Your task to perform on an android device: turn off translation in the chrome app Image 0: 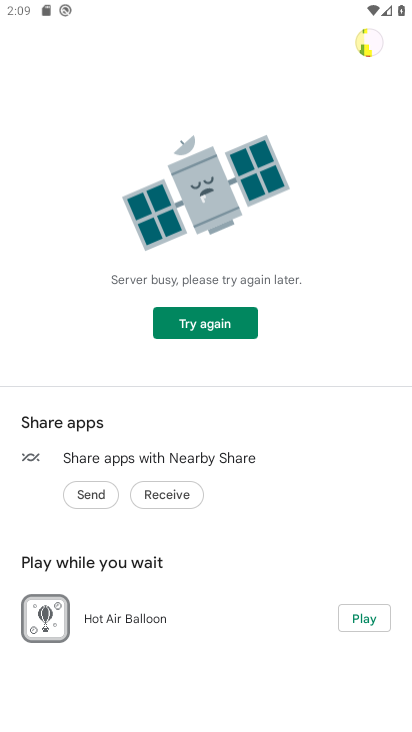
Step 0: press home button
Your task to perform on an android device: turn off translation in the chrome app Image 1: 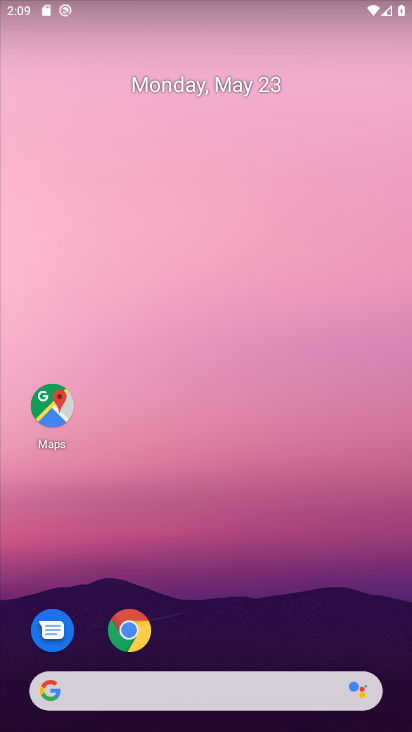
Step 1: click (139, 631)
Your task to perform on an android device: turn off translation in the chrome app Image 2: 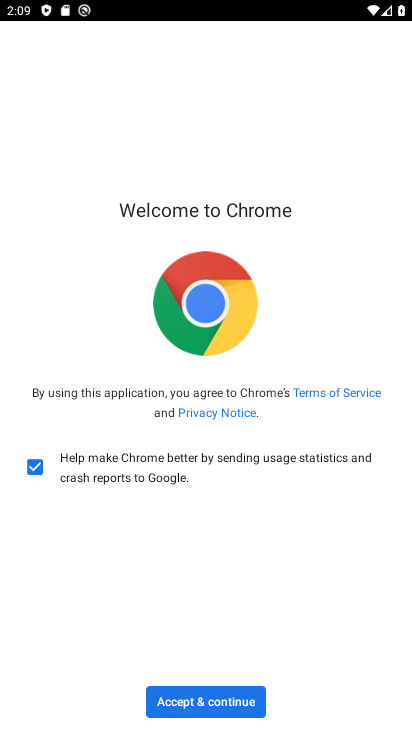
Step 2: click (214, 701)
Your task to perform on an android device: turn off translation in the chrome app Image 3: 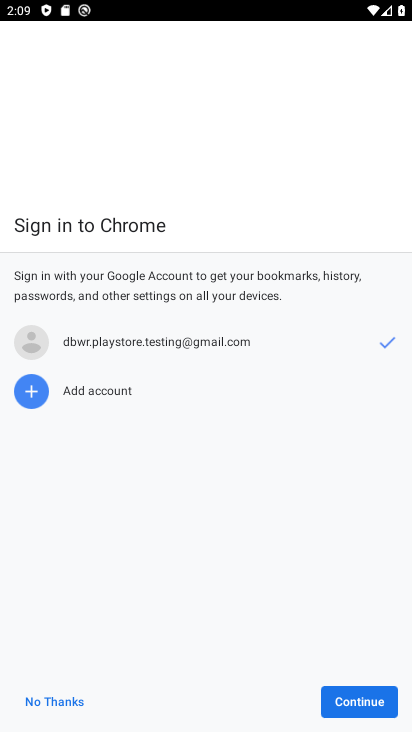
Step 3: click (345, 690)
Your task to perform on an android device: turn off translation in the chrome app Image 4: 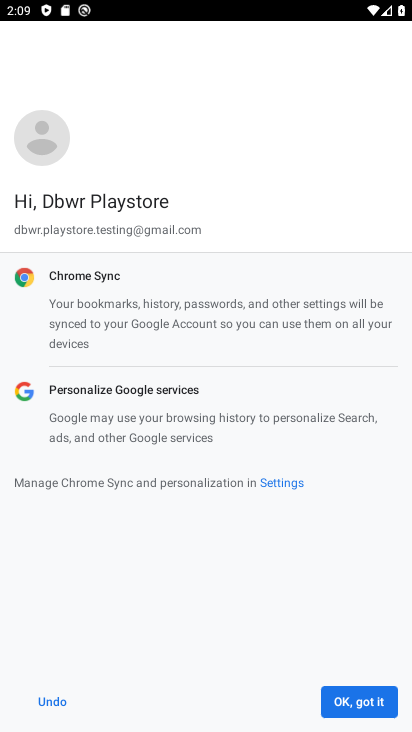
Step 4: click (354, 704)
Your task to perform on an android device: turn off translation in the chrome app Image 5: 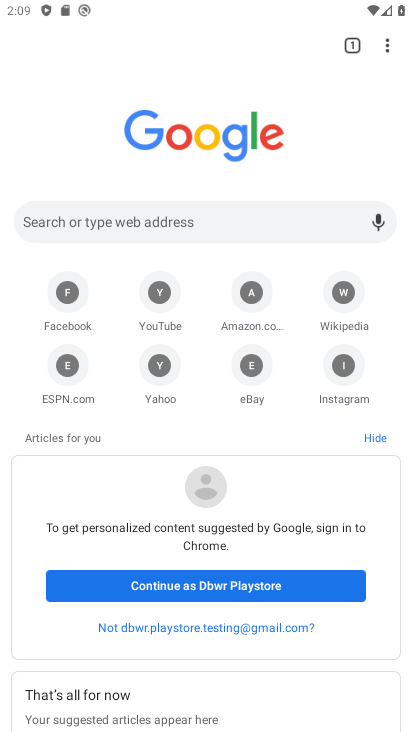
Step 5: click (384, 43)
Your task to perform on an android device: turn off translation in the chrome app Image 6: 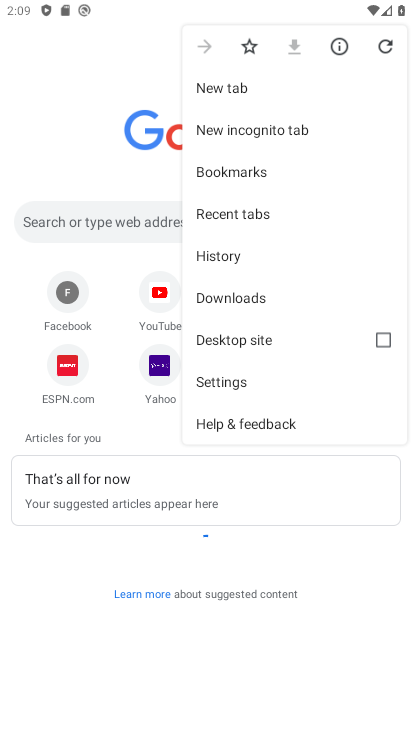
Step 6: click (224, 384)
Your task to perform on an android device: turn off translation in the chrome app Image 7: 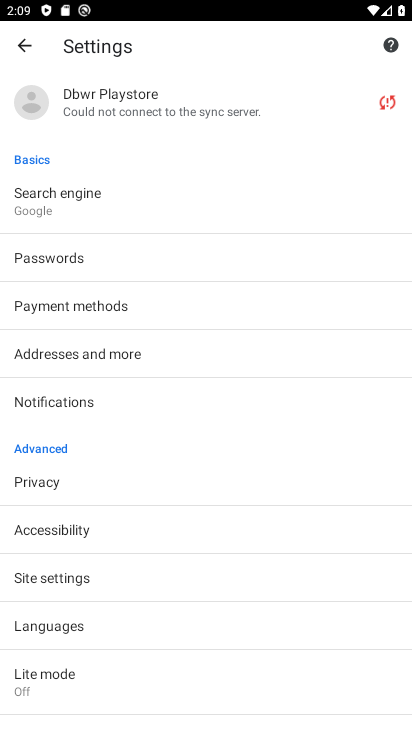
Step 7: click (70, 631)
Your task to perform on an android device: turn off translation in the chrome app Image 8: 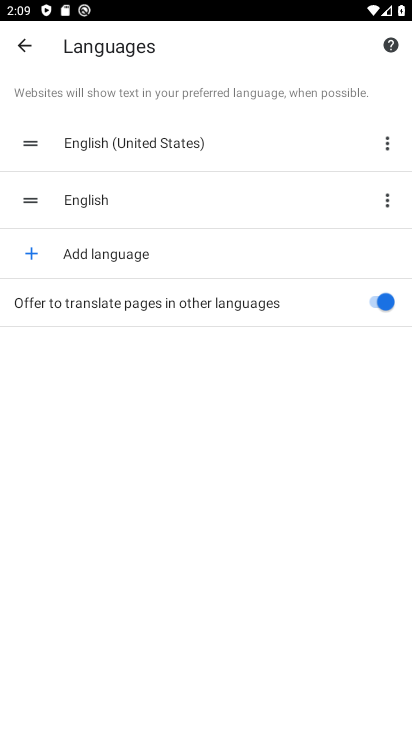
Step 8: click (369, 304)
Your task to perform on an android device: turn off translation in the chrome app Image 9: 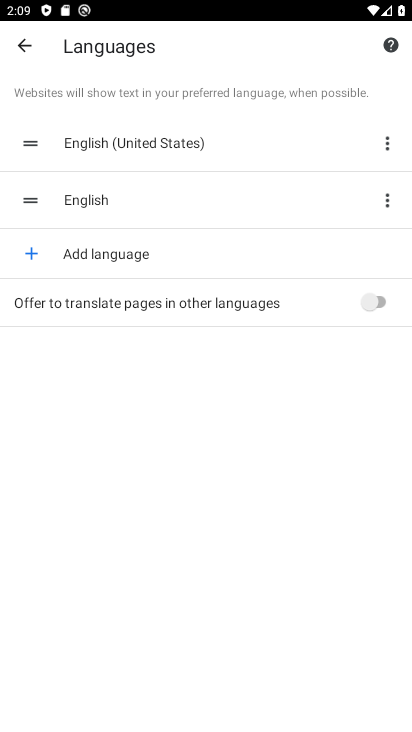
Step 9: task complete